Your task to perform on an android device: open a new tab in the chrome app Image 0: 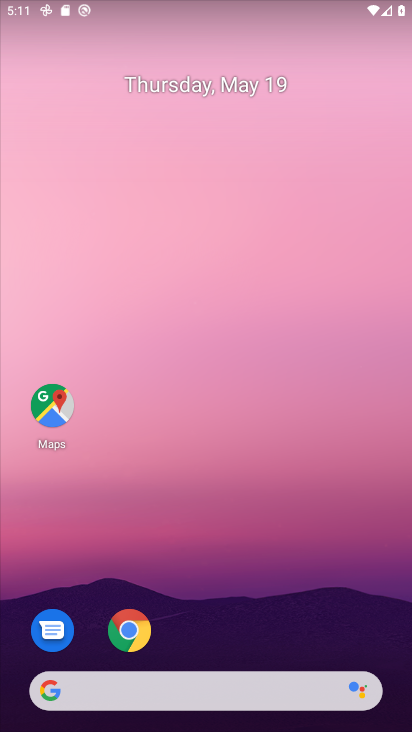
Step 0: drag from (267, 597) to (219, 32)
Your task to perform on an android device: open a new tab in the chrome app Image 1: 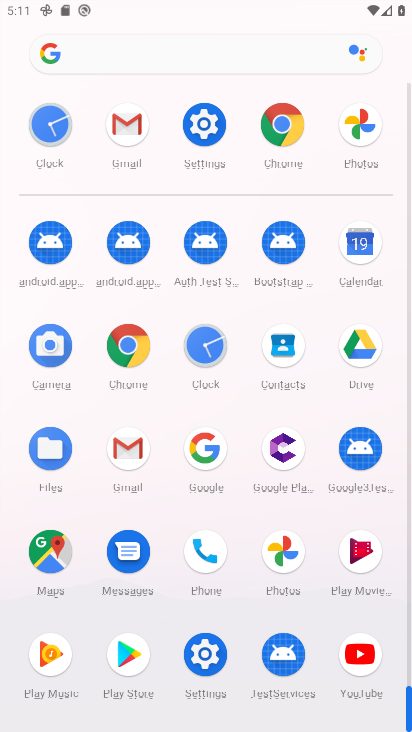
Step 1: drag from (6, 604) to (28, 341)
Your task to perform on an android device: open a new tab in the chrome app Image 2: 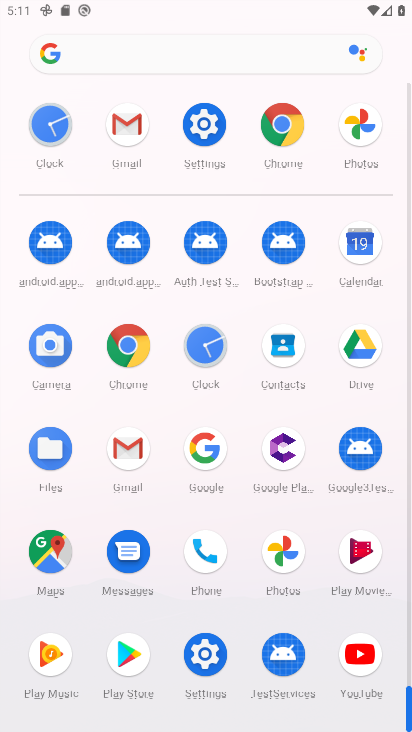
Step 2: click (126, 345)
Your task to perform on an android device: open a new tab in the chrome app Image 3: 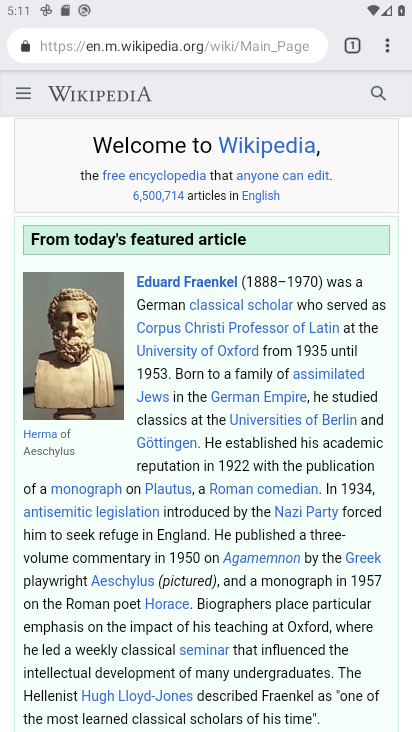
Step 3: task complete